Your task to perform on an android device: turn on improve location accuracy Image 0: 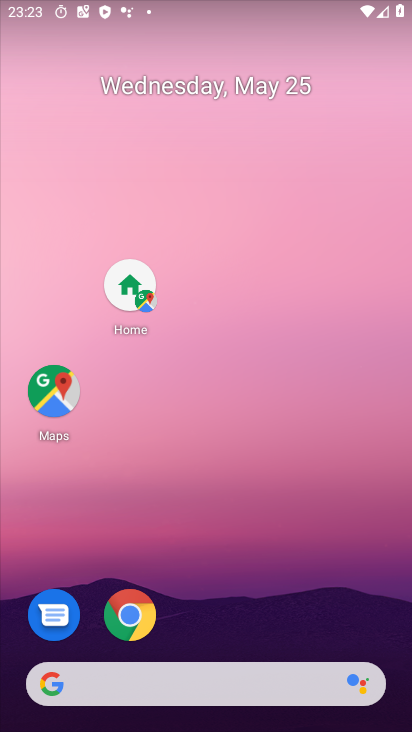
Step 0: press home button
Your task to perform on an android device: turn on improve location accuracy Image 1: 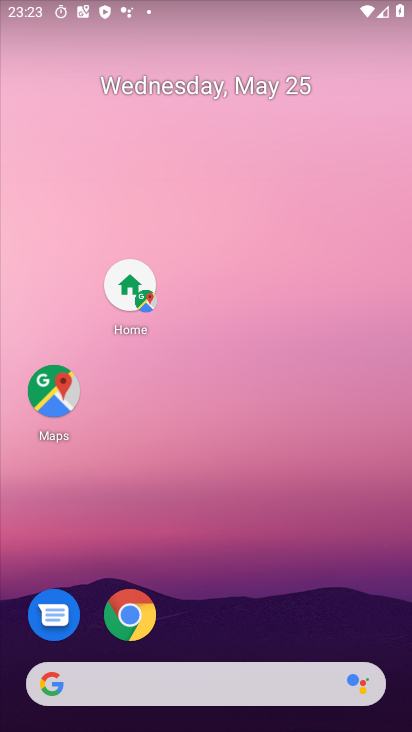
Step 1: drag from (259, 591) to (260, 198)
Your task to perform on an android device: turn on improve location accuracy Image 2: 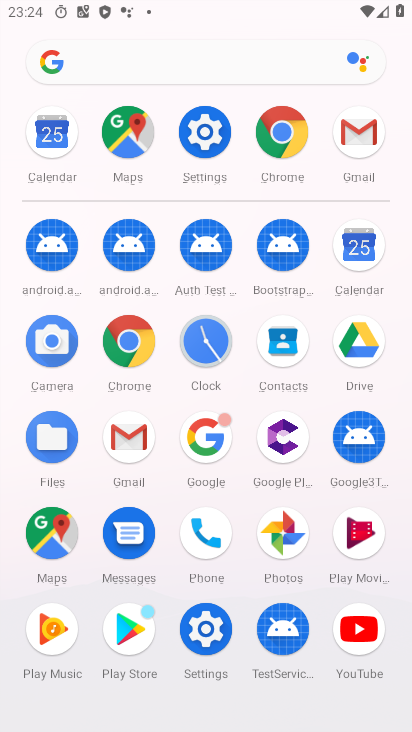
Step 2: click (200, 133)
Your task to perform on an android device: turn on improve location accuracy Image 3: 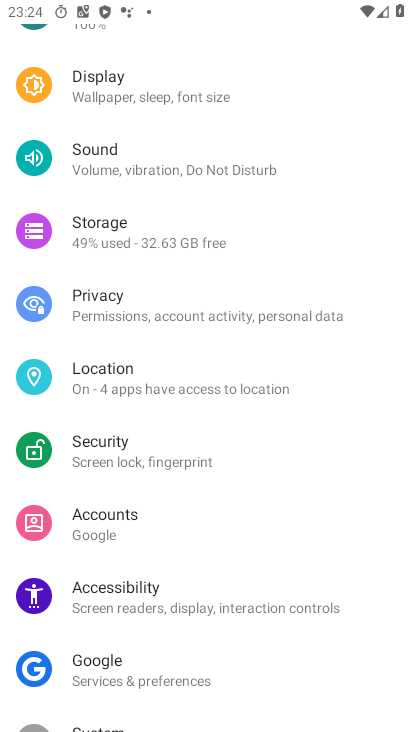
Step 3: click (110, 367)
Your task to perform on an android device: turn on improve location accuracy Image 4: 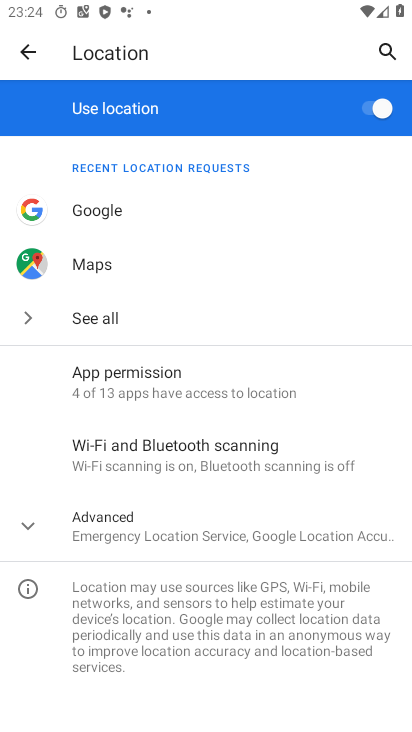
Step 4: click (119, 524)
Your task to perform on an android device: turn on improve location accuracy Image 5: 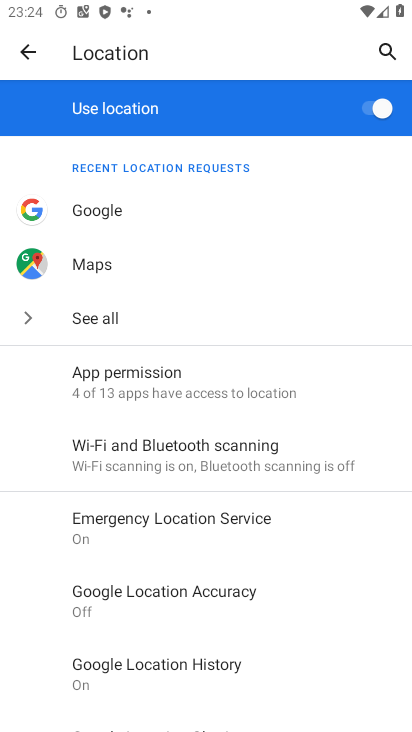
Step 5: click (184, 598)
Your task to perform on an android device: turn on improve location accuracy Image 6: 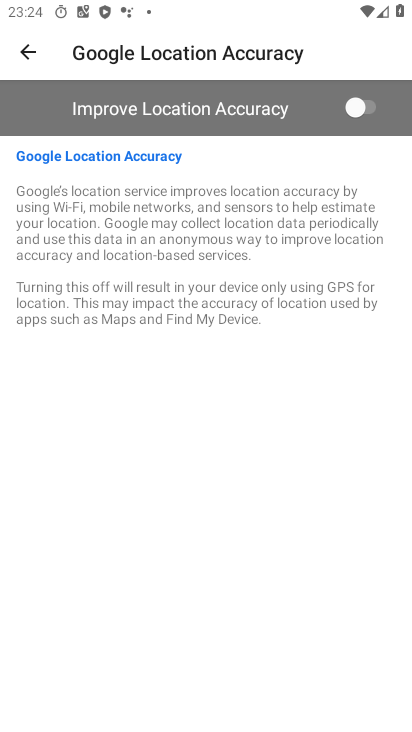
Step 6: click (364, 109)
Your task to perform on an android device: turn on improve location accuracy Image 7: 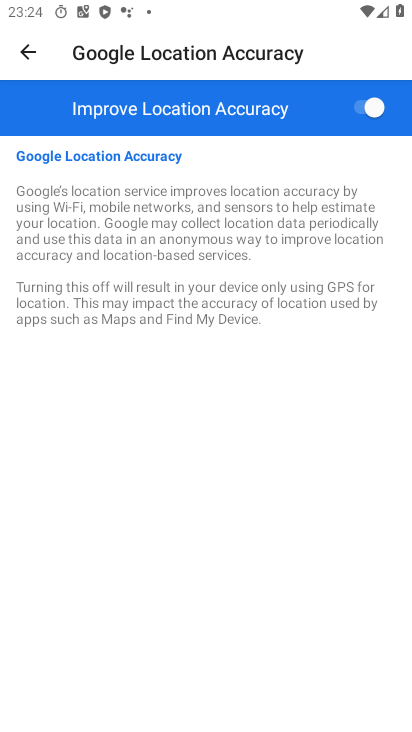
Step 7: task complete